Your task to perform on an android device: Open Google Maps Image 0: 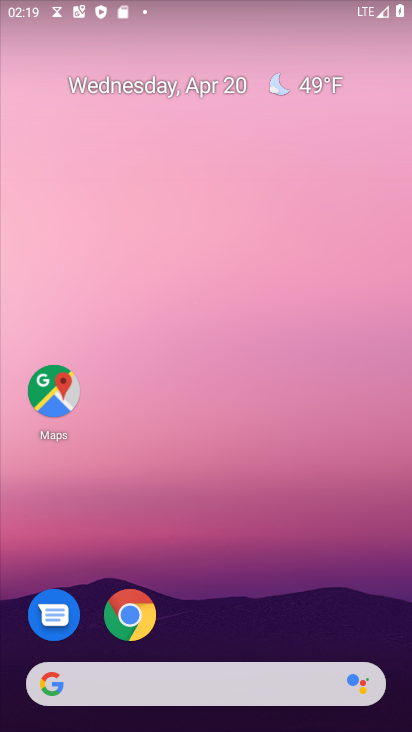
Step 0: click (48, 403)
Your task to perform on an android device: Open Google Maps Image 1: 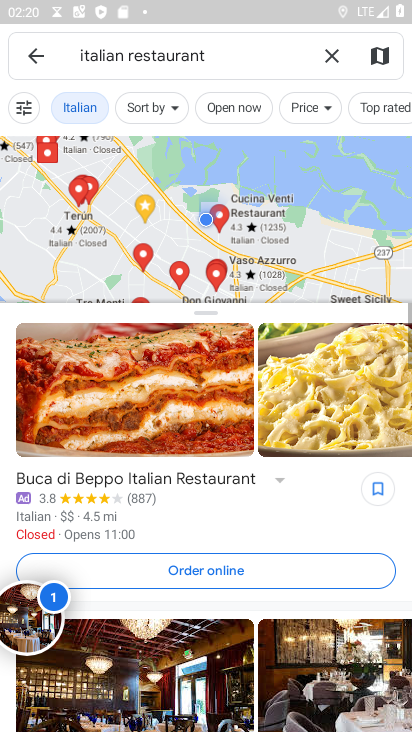
Step 1: task complete